Your task to perform on an android device: check the backup settings in the google photos Image 0: 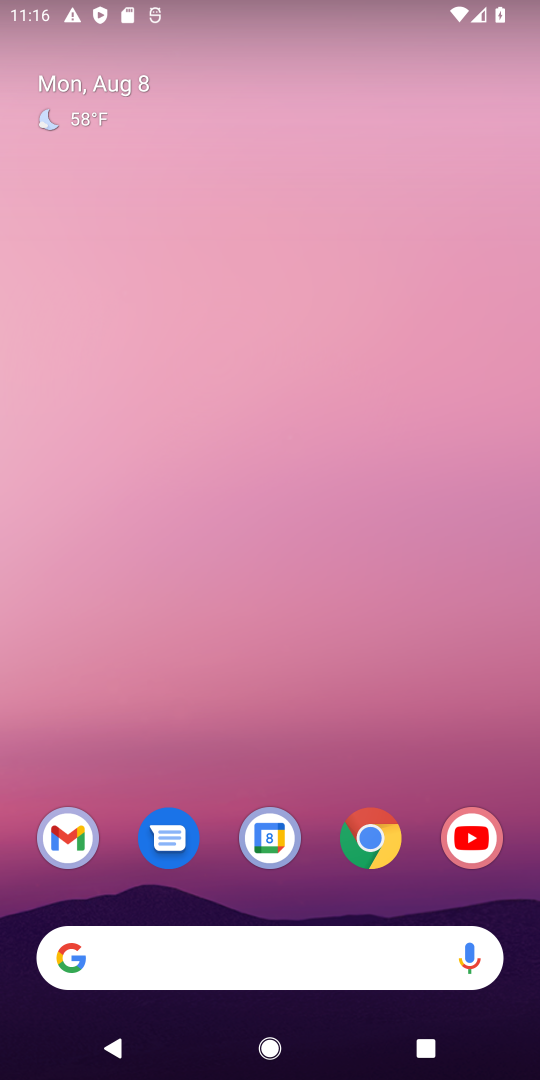
Step 0: drag from (311, 905) to (248, 239)
Your task to perform on an android device: check the backup settings in the google photos Image 1: 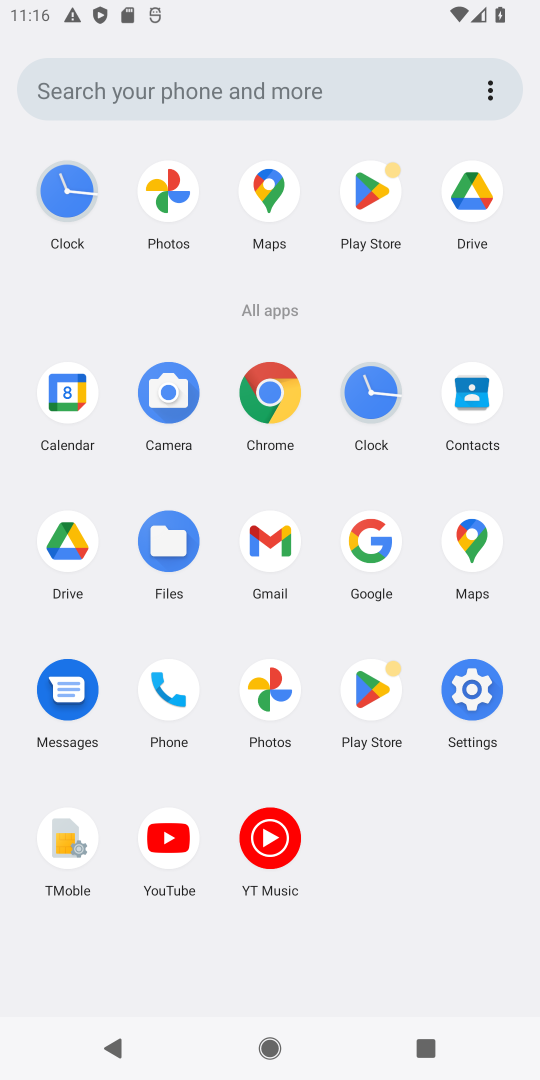
Step 1: click (171, 197)
Your task to perform on an android device: check the backup settings in the google photos Image 2: 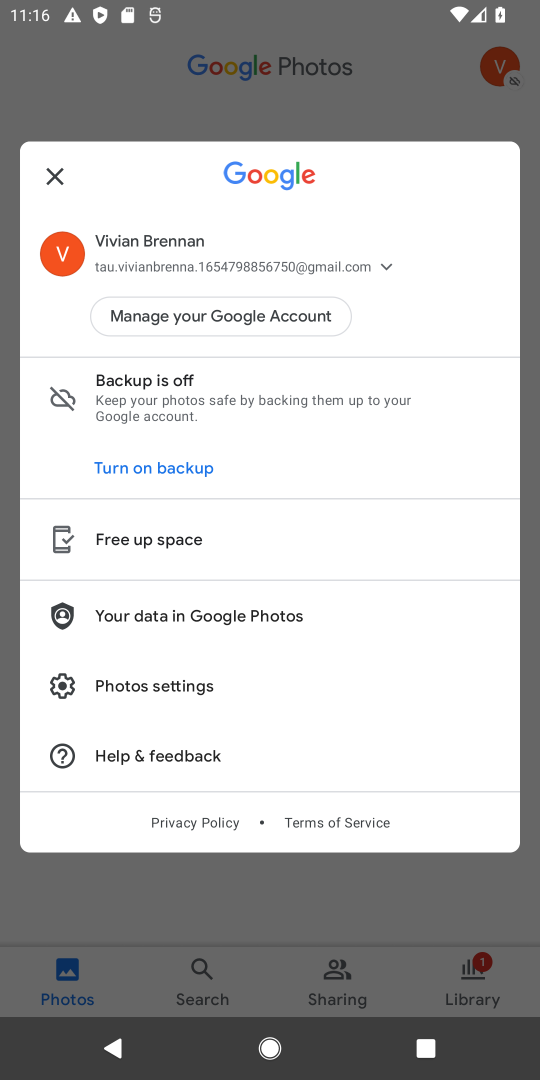
Step 2: click (144, 683)
Your task to perform on an android device: check the backup settings in the google photos Image 3: 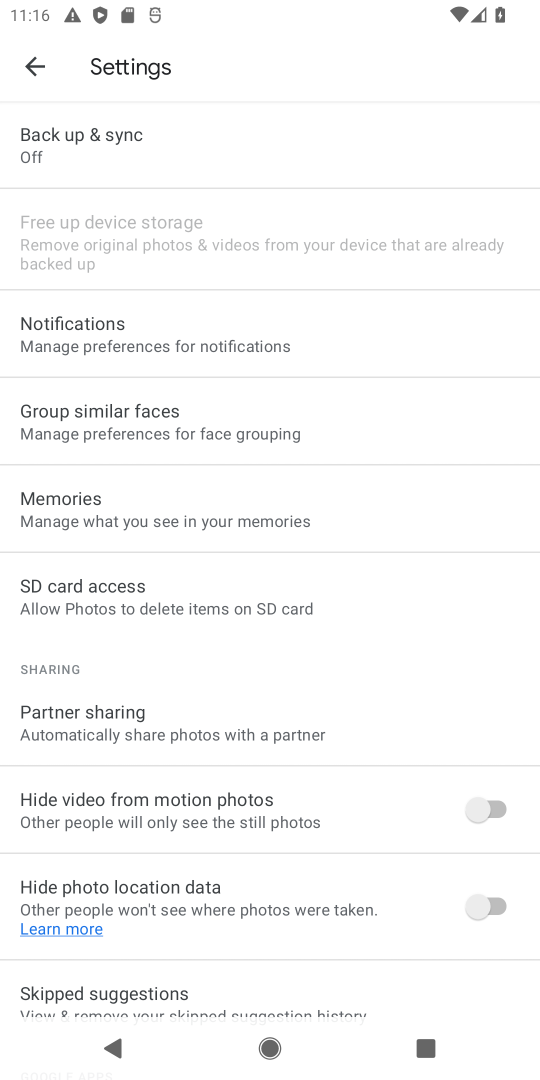
Step 3: click (83, 135)
Your task to perform on an android device: check the backup settings in the google photos Image 4: 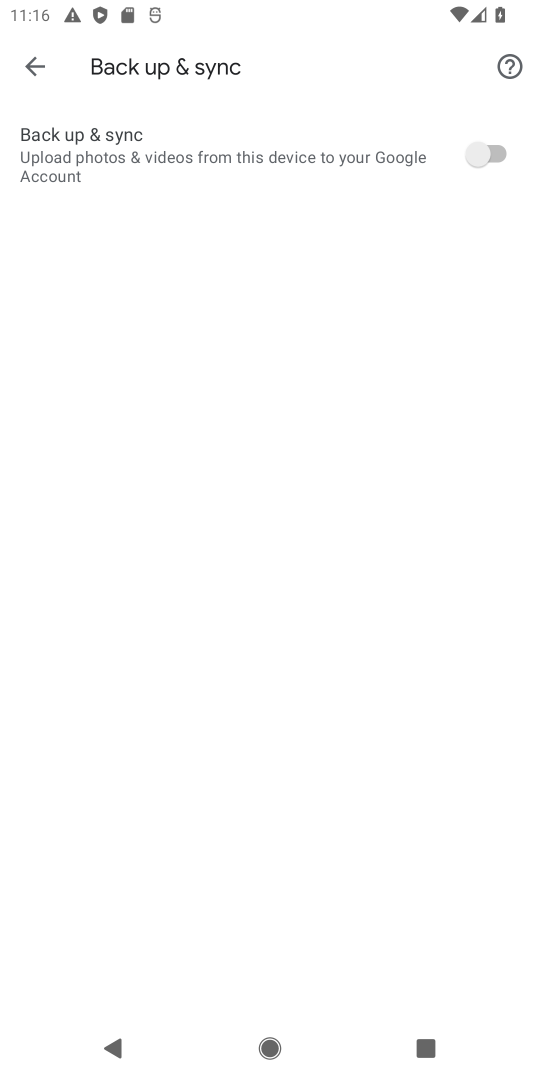
Step 4: click (111, 130)
Your task to perform on an android device: check the backup settings in the google photos Image 5: 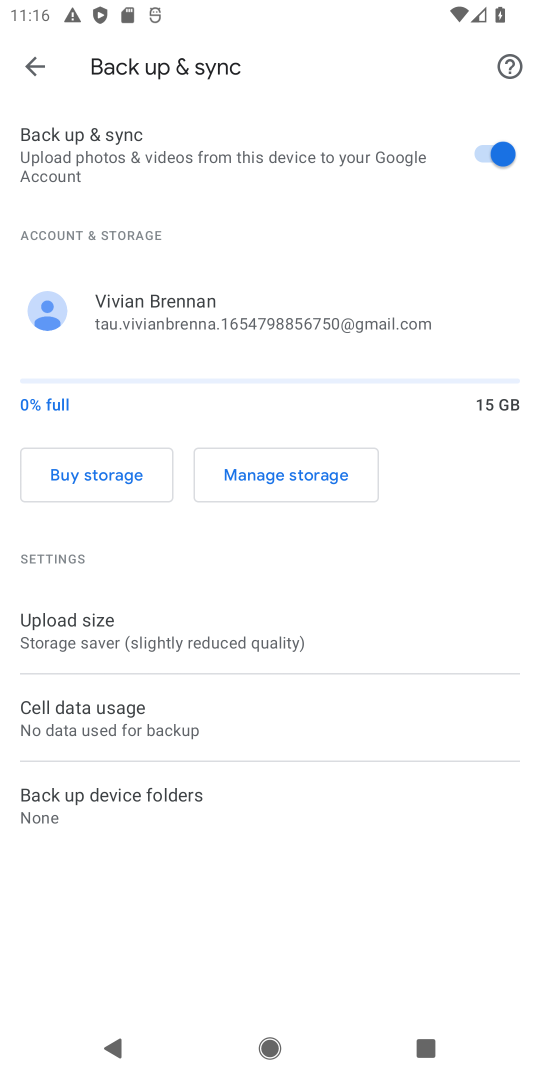
Step 5: task complete